Your task to perform on an android device: Clear all items from cart on walmart.com. Image 0: 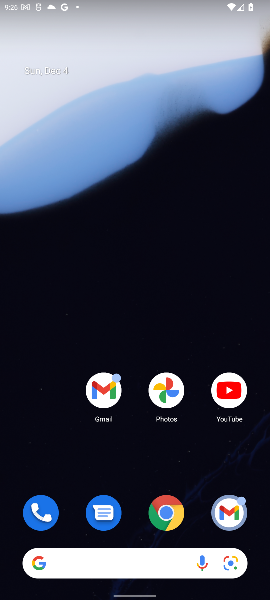
Step 0: click (164, 506)
Your task to perform on an android device: Clear all items from cart on walmart.com. Image 1: 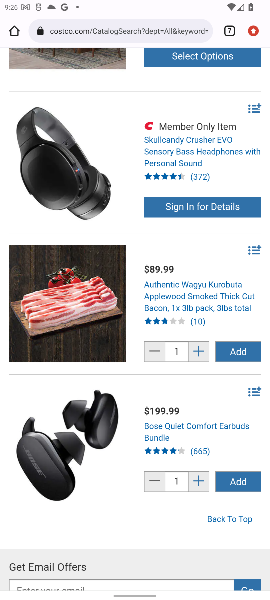
Step 1: click (226, 26)
Your task to perform on an android device: Clear all items from cart on walmart.com. Image 2: 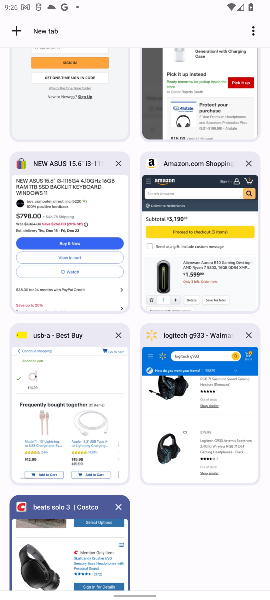
Step 2: click (208, 384)
Your task to perform on an android device: Clear all items from cart on walmart.com. Image 3: 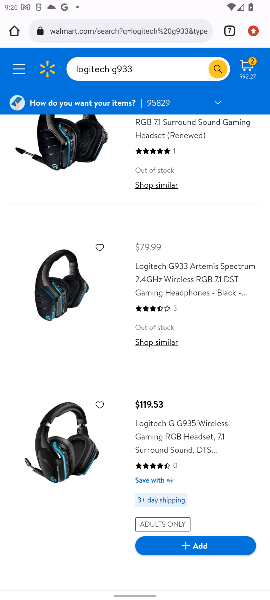
Step 3: click (251, 70)
Your task to perform on an android device: Clear all items from cart on walmart.com. Image 4: 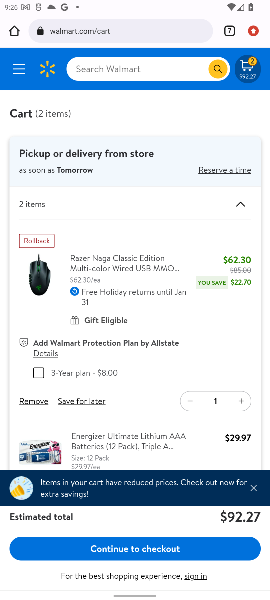
Step 4: click (36, 400)
Your task to perform on an android device: Clear all items from cart on walmart.com. Image 5: 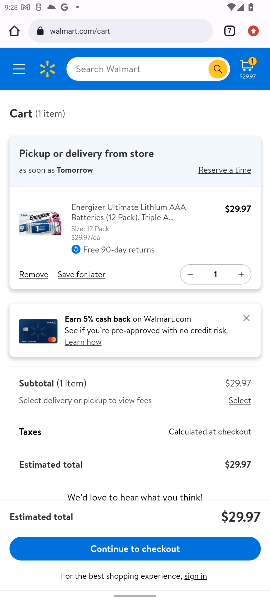
Step 5: click (36, 270)
Your task to perform on an android device: Clear all items from cart on walmart.com. Image 6: 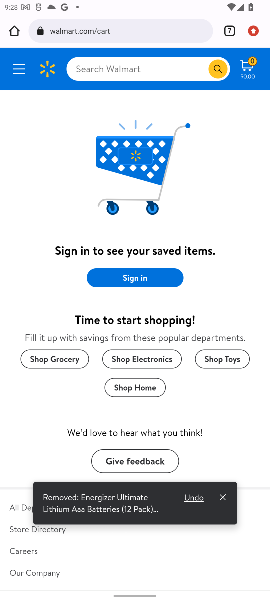
Step 6: task complete